Your task to perform on an android device: change the clock display to digital Image 0: 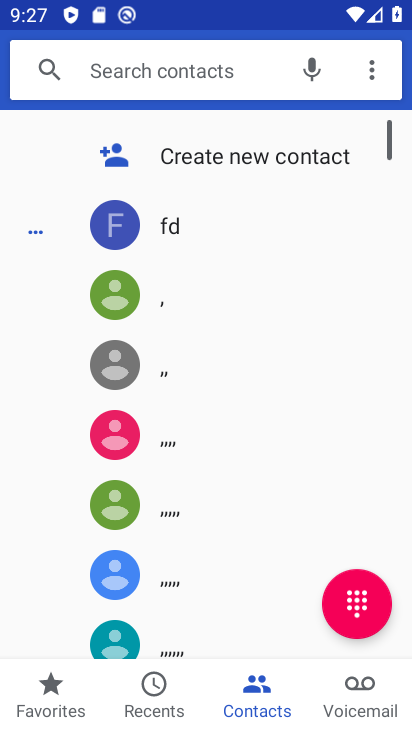
Step 0: press home button
Your task to perform on an android device: change the clock display to digital Image 1: 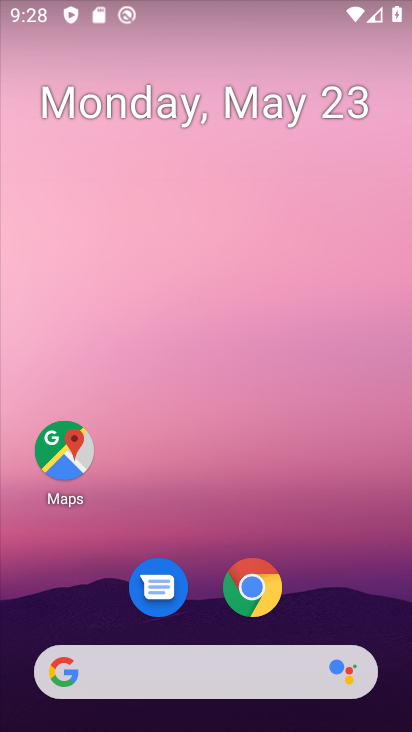
Step 1: drag from (330, 603) to (319, 148)
Your task to perform on an android device: change the clock display to digital Image 2: 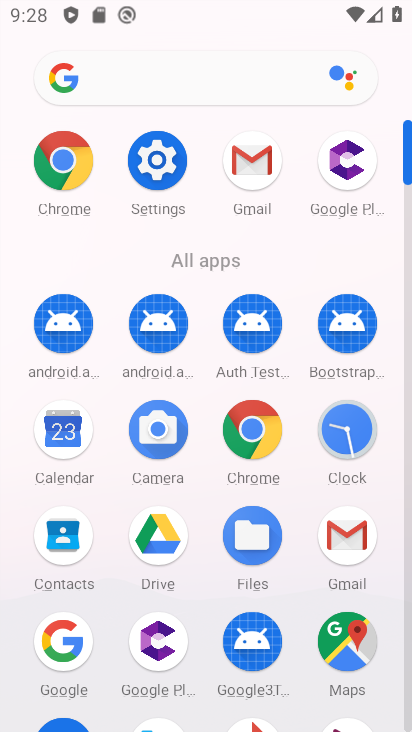
Step 2: click (333, 447)
Your task to perform on an android device: change the clock display to digital Image 3: 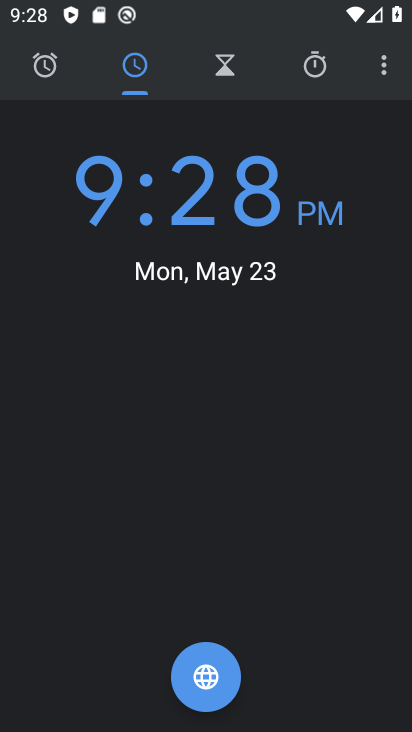
Step 3: click (395, 87)
Your task to perform on an android device: change the clock display to digital Image 4: 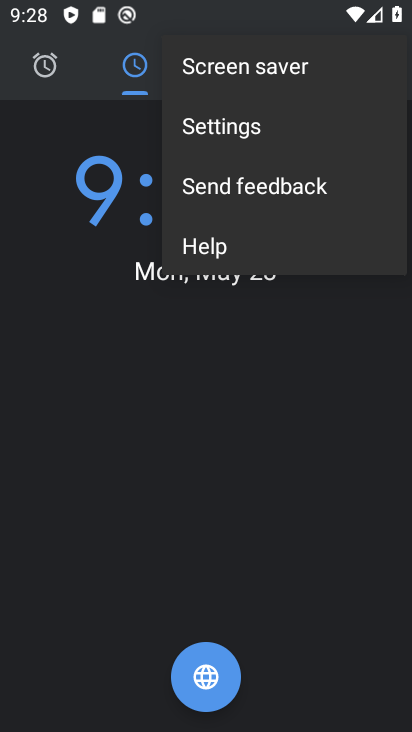
Step 4: click (242, 125)
Your task to perform on an android device: change the clock display to digital Image 5: 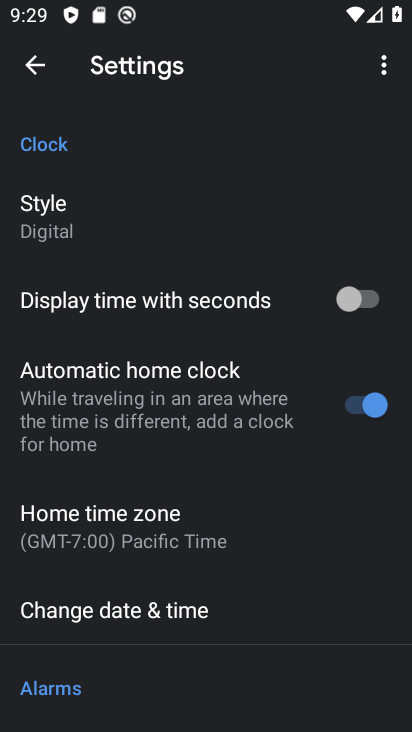
Step 5: click (72, 212)
Your task to perform on an android device: change the clock display to digital Image 6: 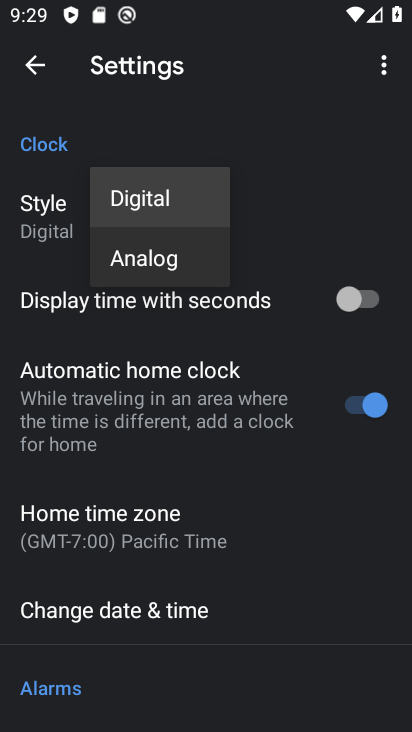
Step 6: task complete